Your task to perform on an android device: Go to display settings Image 0: 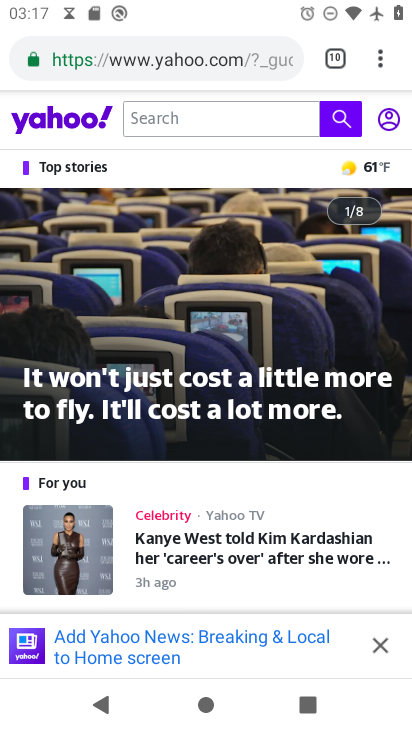
Step 0: press home button
Your task to perform on an android device: Go to display settings Image 1: 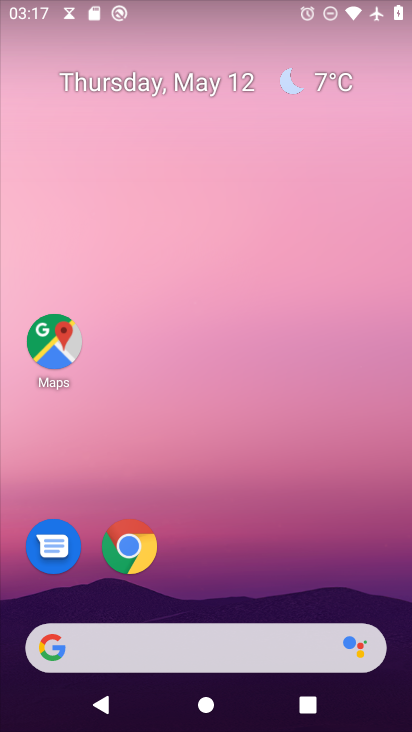
Step 1: drag from (154, 650) to (271, 228)
Your task to perform on an android device: Go to display settings Image 2: 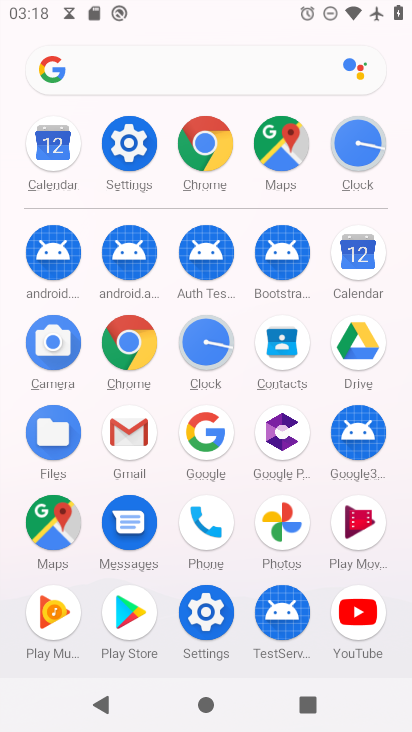
Step 2: click (124, 162)
Your task to perform on an android device: Go to display settings Image 3: 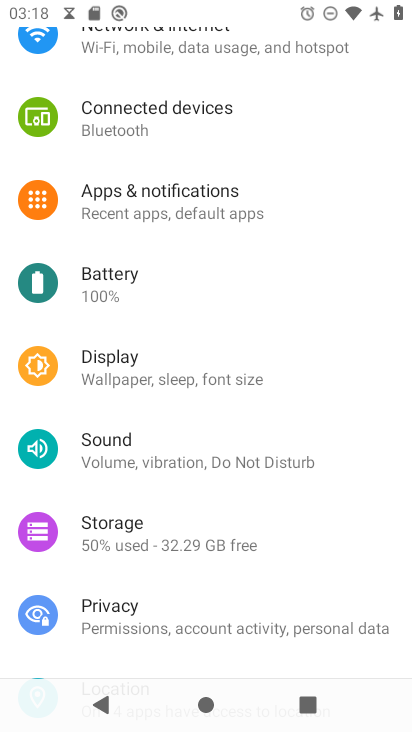
Step 3: click (133, 375)
Your task to perform on an android device: Go to display settings Image 4: 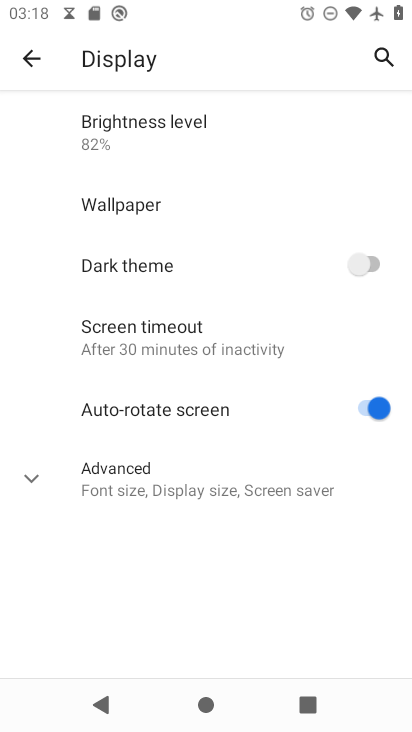
Step 4: task complete